Your task to perform on an android device: Open Google Maps and go to "Timeline" Image 0: 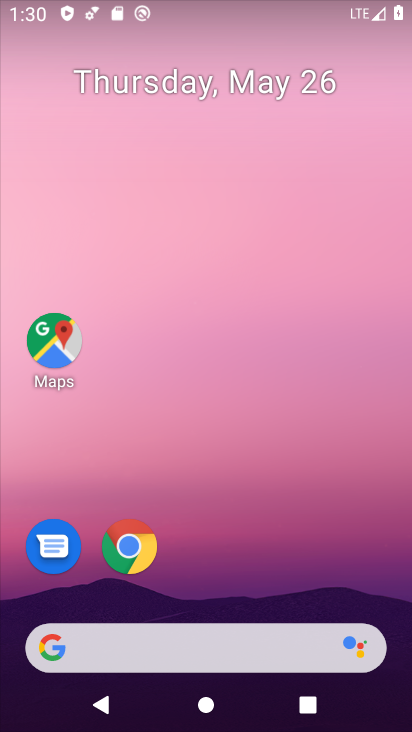
Step 0: click (56, 346)
Your task to perform on an android device: Open Google Maps and go to "Timeline" Image 1: 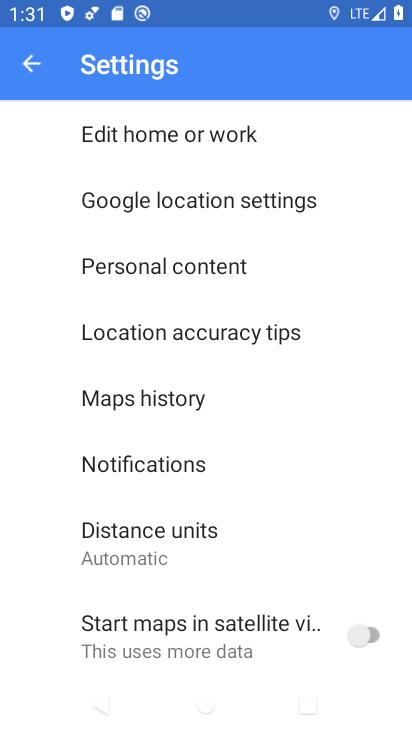
Step 1: click (28, 58)
Your task to perform on an android device: Open Google Maps and go to "Timeline" Image 2: 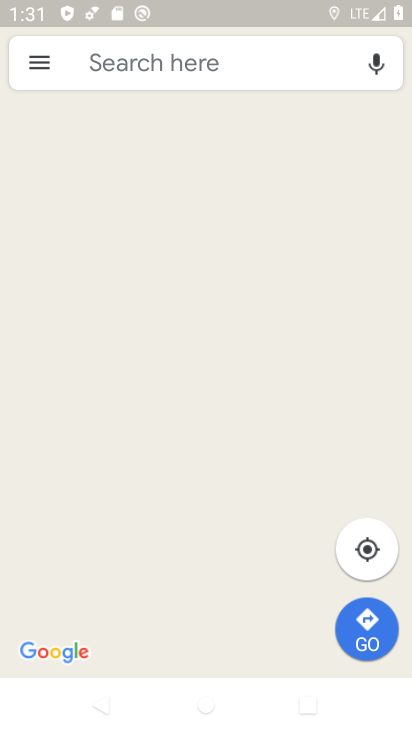
Step 2: click (45, 56)
Your task to perform on an android device: Open Google Maps and go to "Timeline" Image 3: 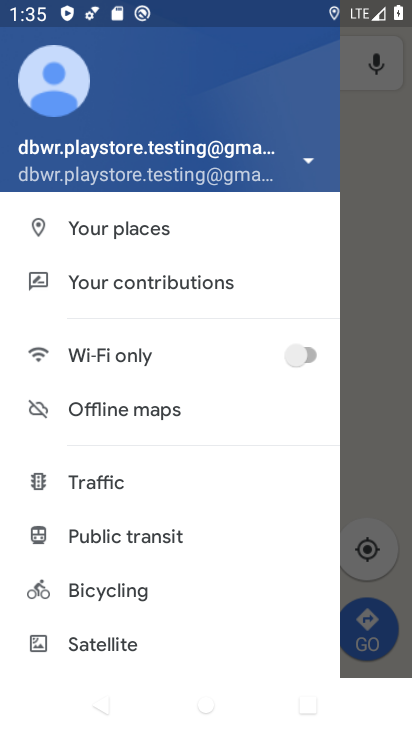
Step 3: task complete